Your task to perform on an android device: Search for a 36" x 48" whiteboard on Home Depot Image 0: 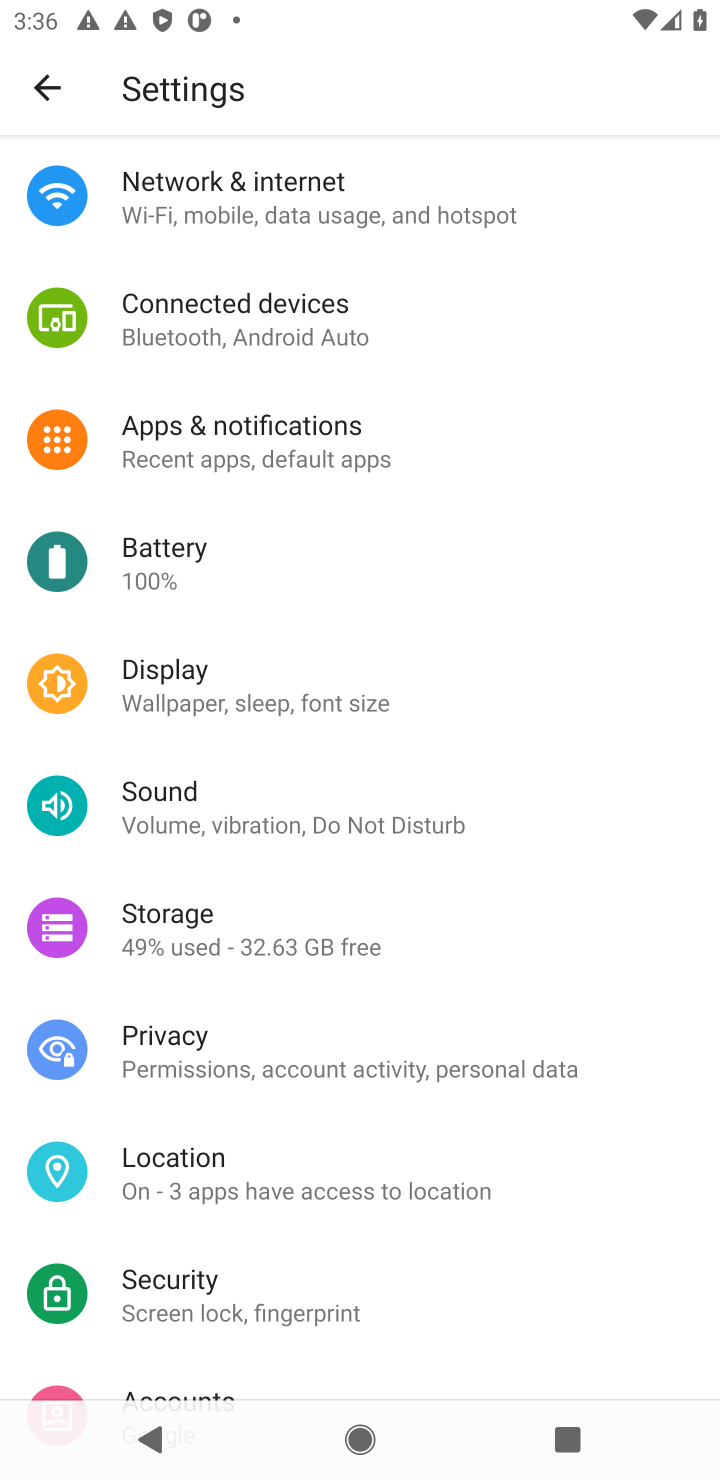
Step 0: press home button
Your task to perform on an android device: Search for a 36" x 48" whiteboard on Home Depot Image 1: 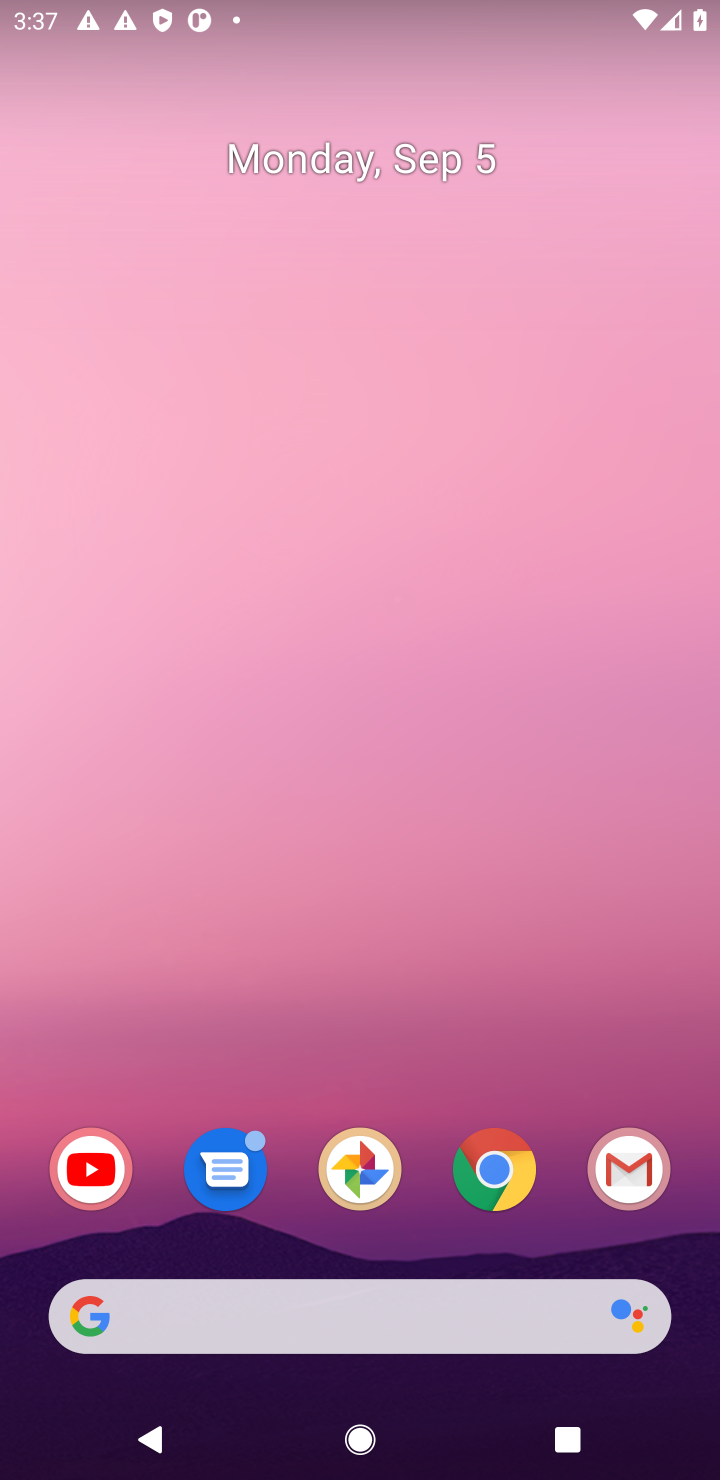
Step 1: click (498, 1175)
Your task to perform on an android device: Search for a 36" x 48" whiteboard on Home Depot Image 2: 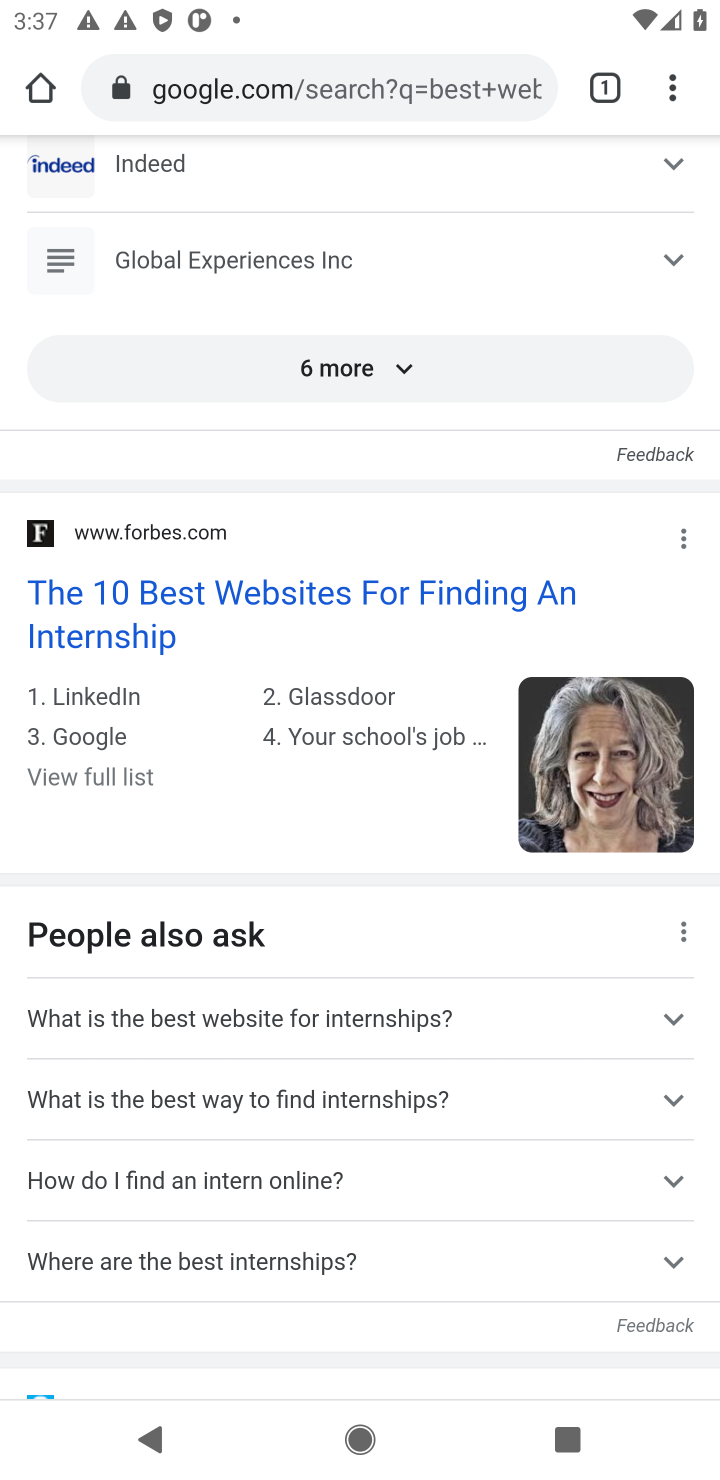
Step 2: click (353, 98)
Your task to perform on an android device: Search for a 36" x 48" whiteboard on Home Depot Image 3: 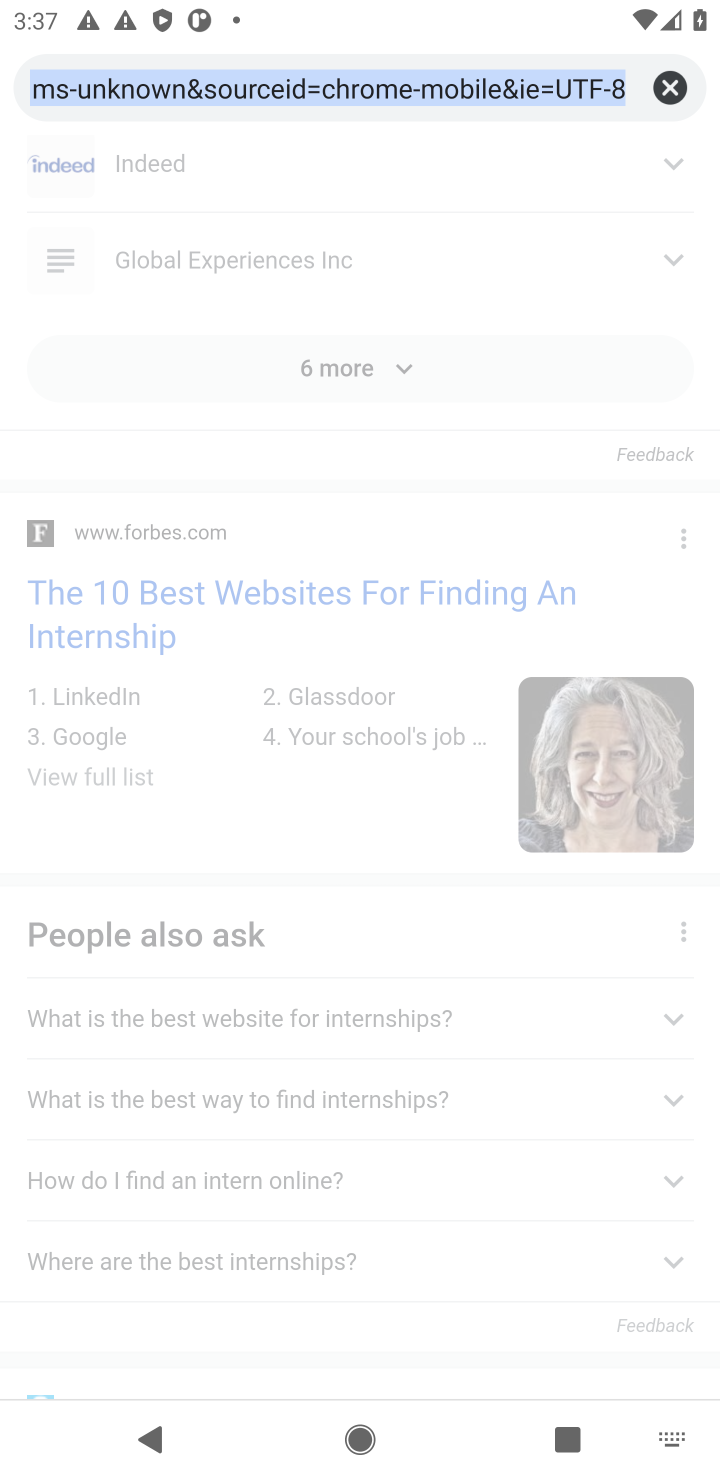
Step 3: click (353, 98)
Your task to perform on an android device: Search for a 36" x 48" whiteboard on Home Depot Image 4: 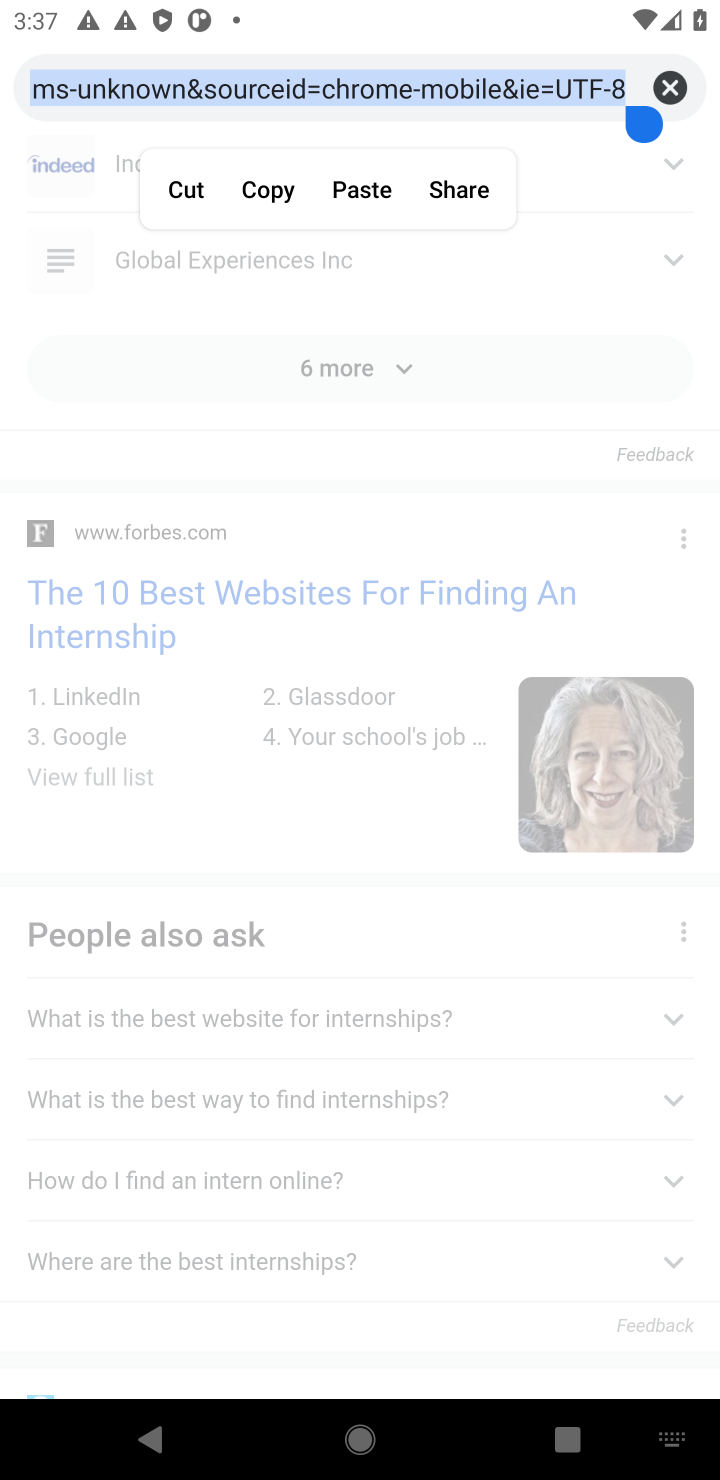
Step 4: click (669, 89)
Your task to perform on an android device: Search for a 36" x 48" whiteboard on Home Depot Image 5: 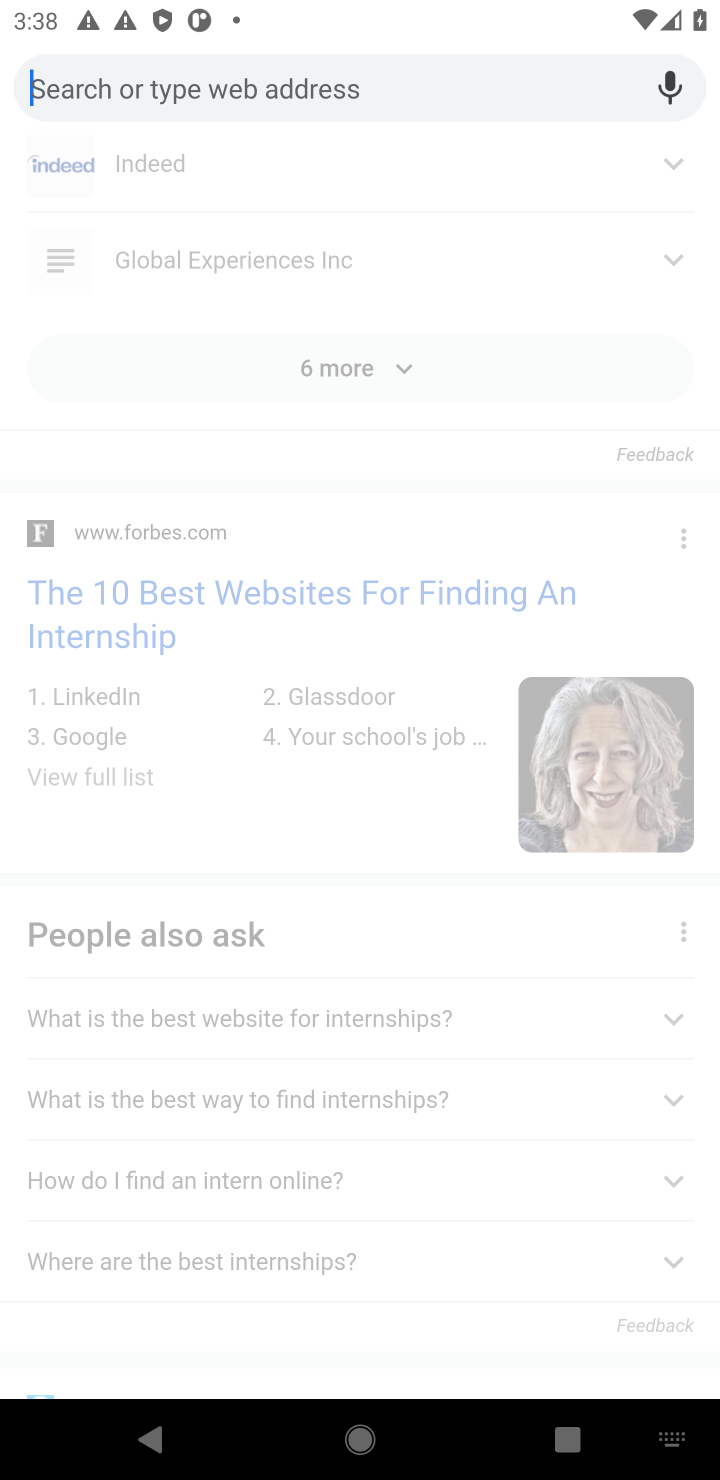
Step 5: type "home depot"
Your task to perform on an android device: Search for a 36" x 48" whiteboard on Home Depot Image 6: 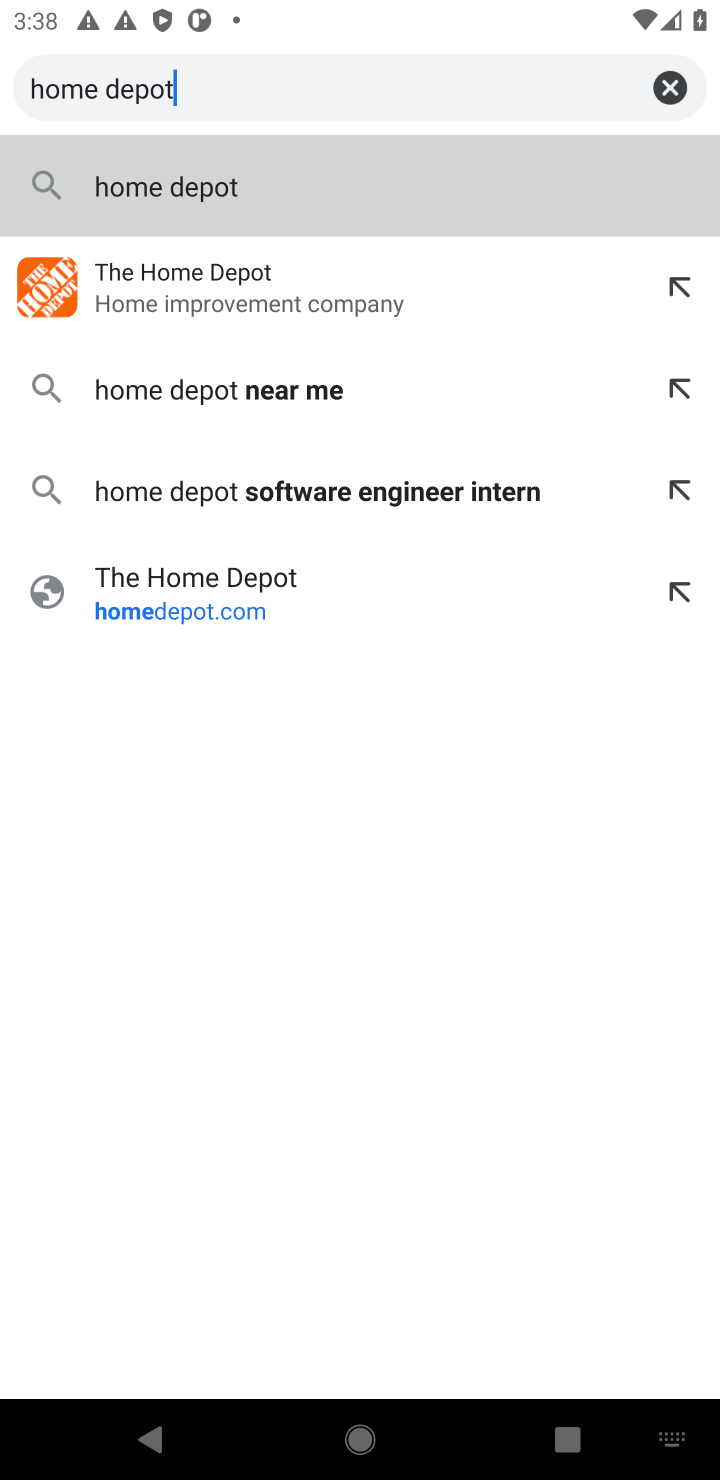
Step 6: click (191, 287)
Your task to perform on an android device: Search for a 36" x 48" whiteboard on Home Depot Image 7: 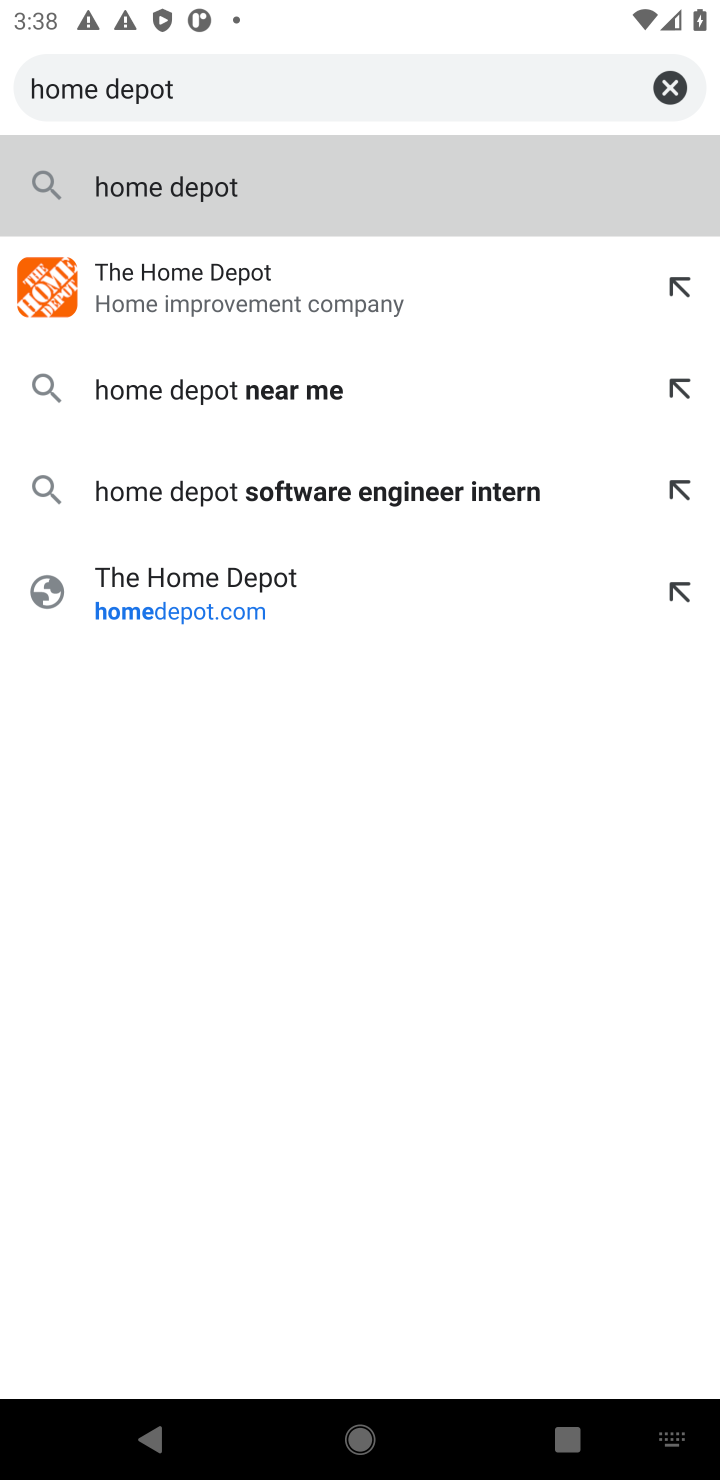
Step 7: click (156, 297)
Your task to perform on an android device: Search for a 36" x 48" whiteboard on Home Depot Image 8: 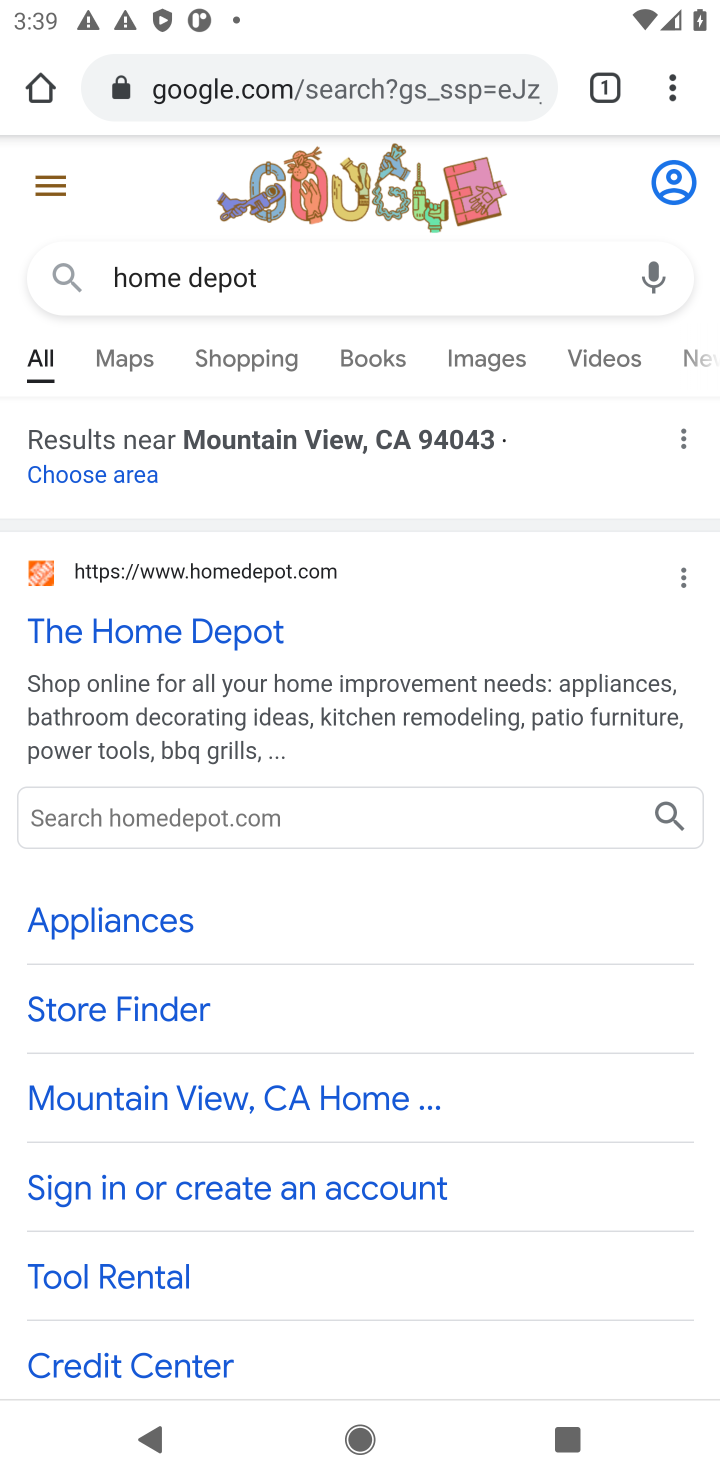
Step 8: click (112, 611)
Your task to perform on an android device: Search for a 36" x 48" whiteboard on Home Depot Image 9: 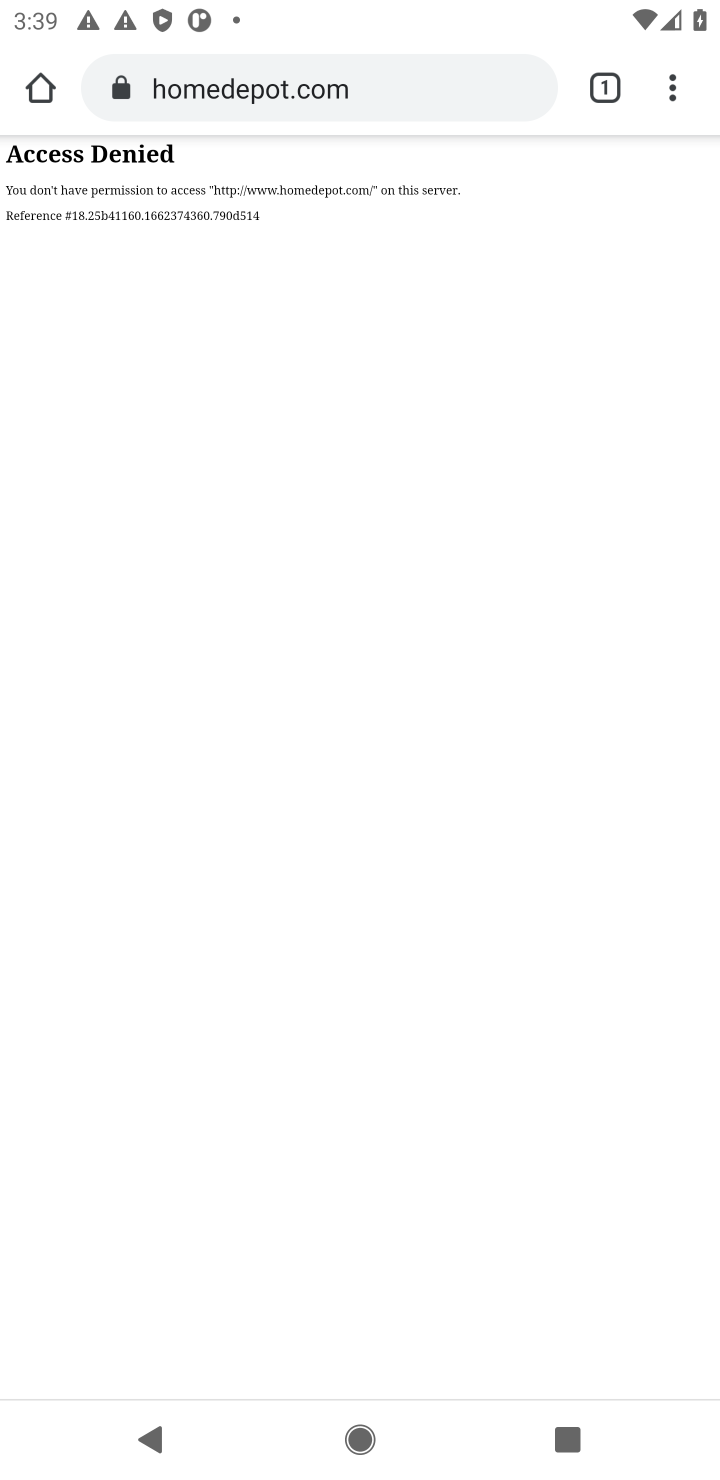
Step 9: task complete